Your task to perform on an android device: change your default location settings in chrome Image 0: 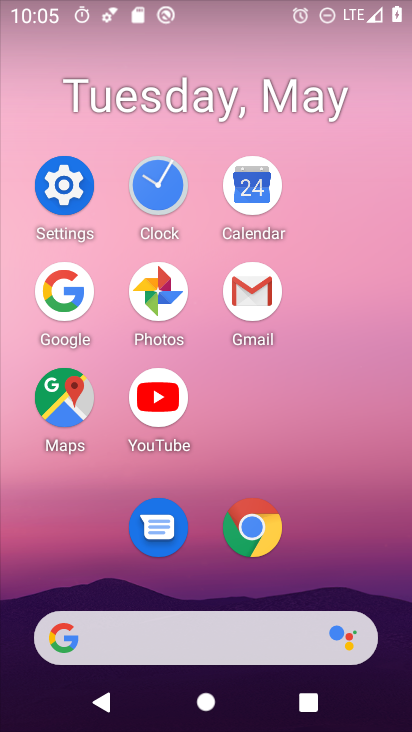
Step 0: click (268, 523)
Your task to perform on an android device: change your default location settings in chrome Image 1: 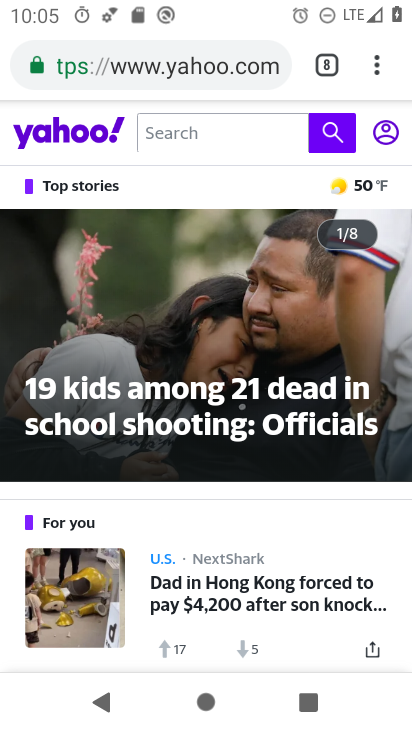
Step 1: click (384, 64)
Your task to perform on an android device: change your default location settings in chrome Image 2: 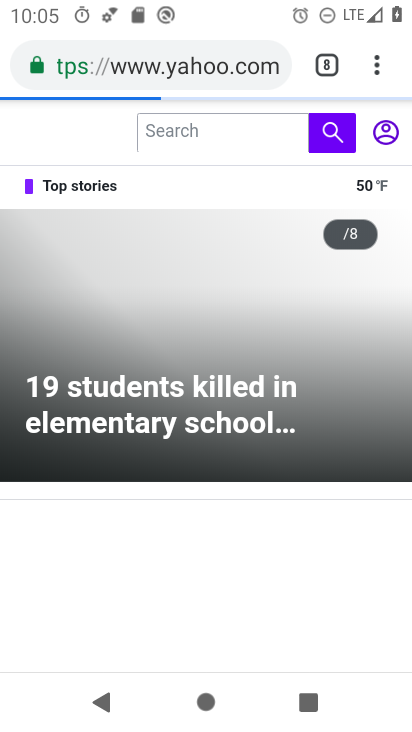
Step 2: click (366, 66)
Your task to perform on an android device: change your default location settings in chrome Image 3: 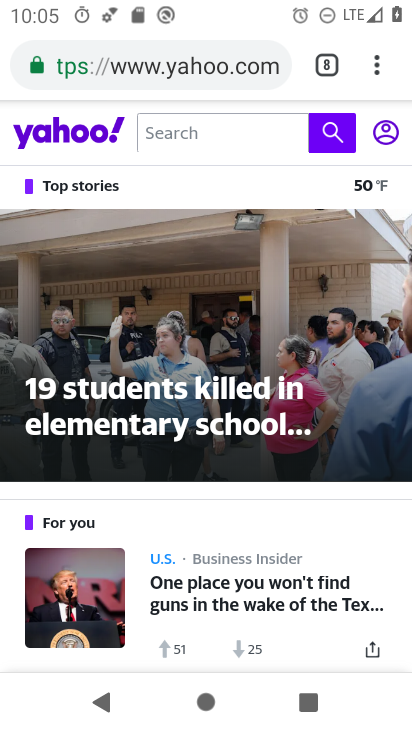
Step 3: click (389, 52)
Your task to perform on an android device: change your default location settings in chrome Image 4: 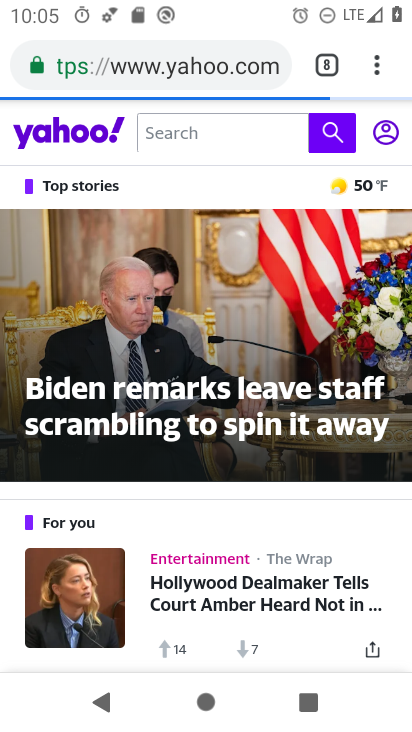
Step 4: click (383, 70)
Your task to perform on an android device: change your default location settings in chrome Image 5: 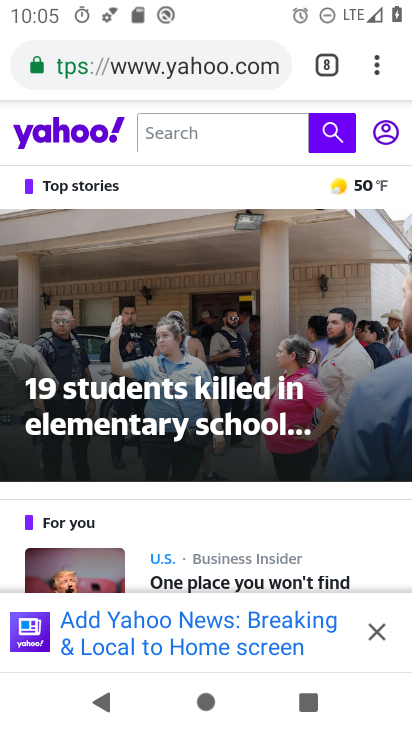
Step 5: click (371, 86)
Your task to perform on an android device: change your default location settings in chrome Image 6: 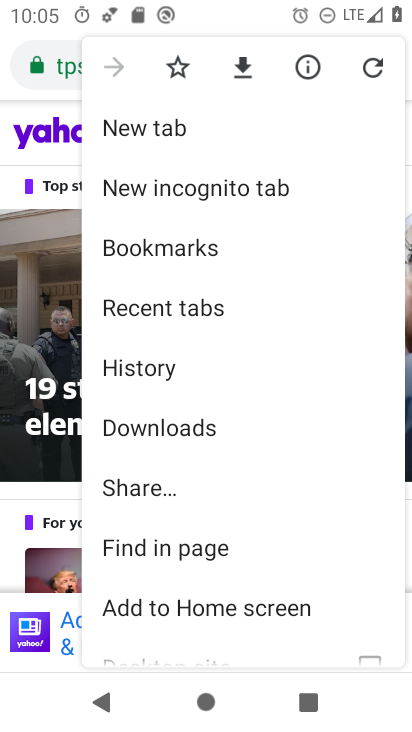
Step 6: drag from (187, 517) to (219, 101)
Your task to perform on an android device: change your default location settings in chrome Image 7: 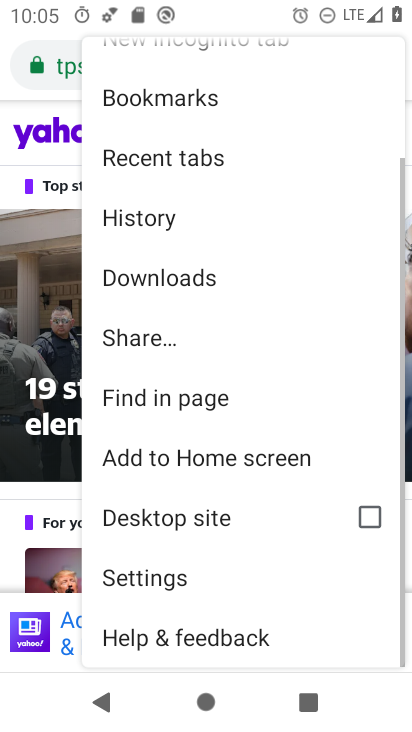
Step 7: click (180, 581)
Your task to perform on an android device: change your default location settings in chrome Image 8: 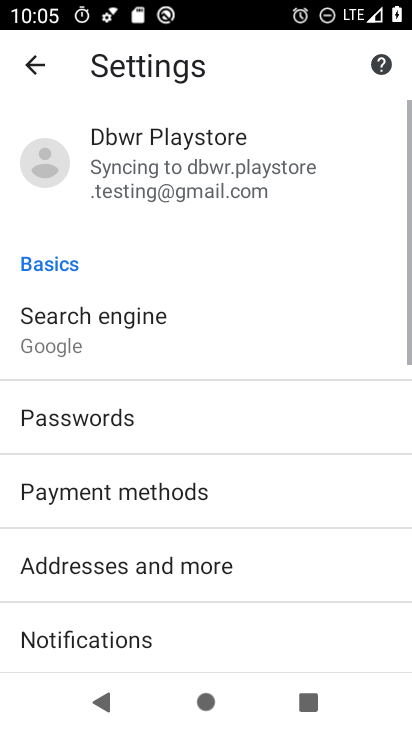
Step 8: drag from (180, 581) to (246, 147)
Your task to perform on an android device: change your default location settings in chrome Image 9: 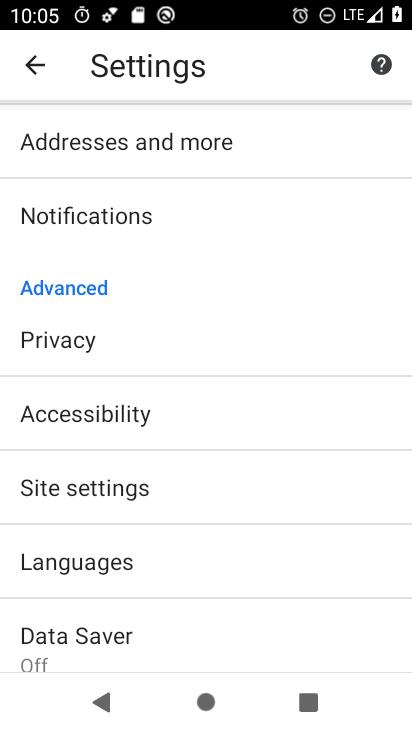
Step 9: drag from (115, 594) to (195, 202)
Your task to perform on an android device: change your default location settings in chrome Image 10: 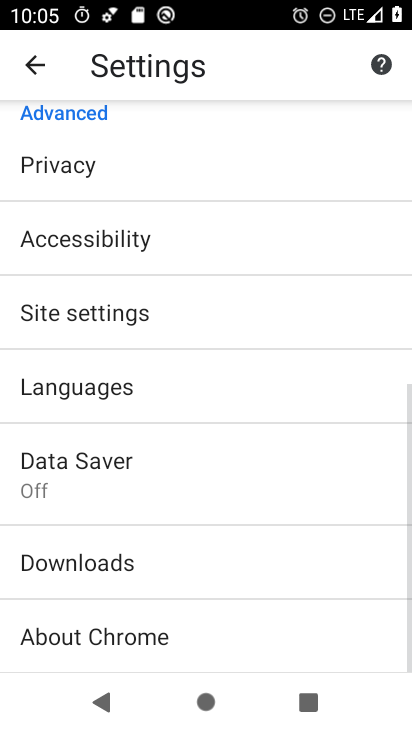
Step 10: click (169, 310)
Your task to perform on an android device: change your default location settings in chrome Image 11: 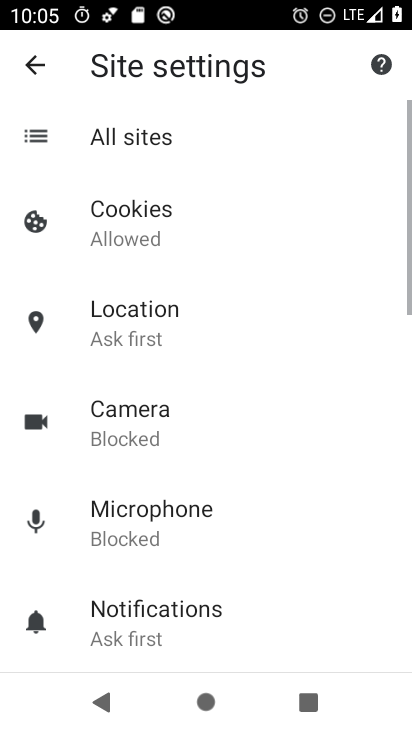
Step 11: click (208, 359)
Your task to perform on an android device: change your default location settings in chrome Image 12: 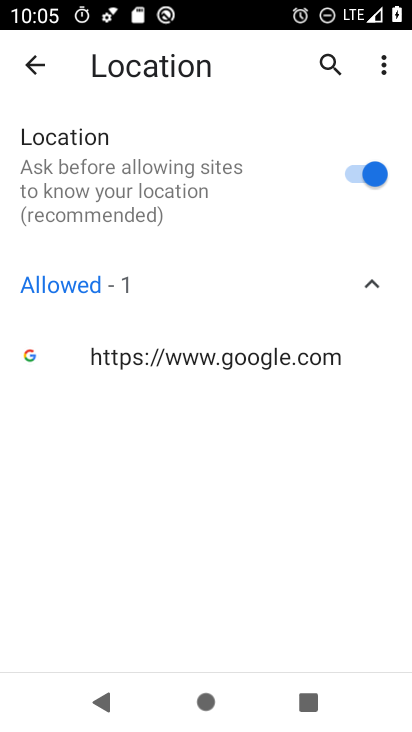
Step 12: click (359, 188)
Your task to perform on an android device: change your default location settings in chrome Image 13: 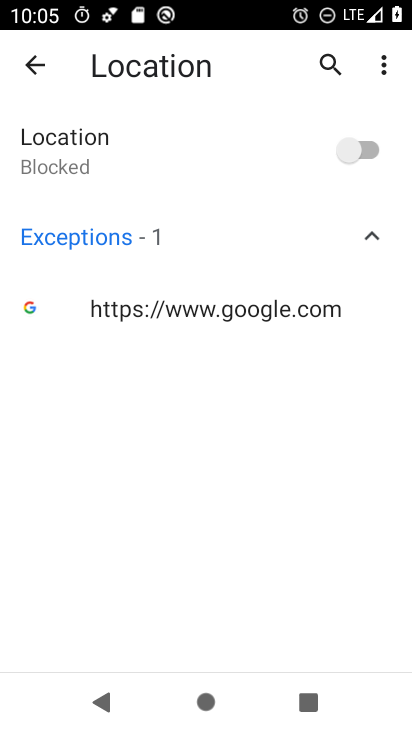
Step 13: task complete